Your task to perform on an android device: change alarm snooze length Image 0: 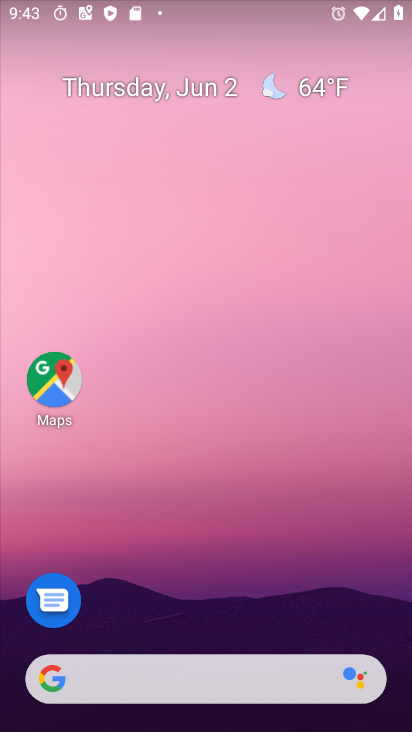
Step 0: drag from (220, 576) to (194, 78)
Your task to perform on an android device: change alarm snooze length Image 1: 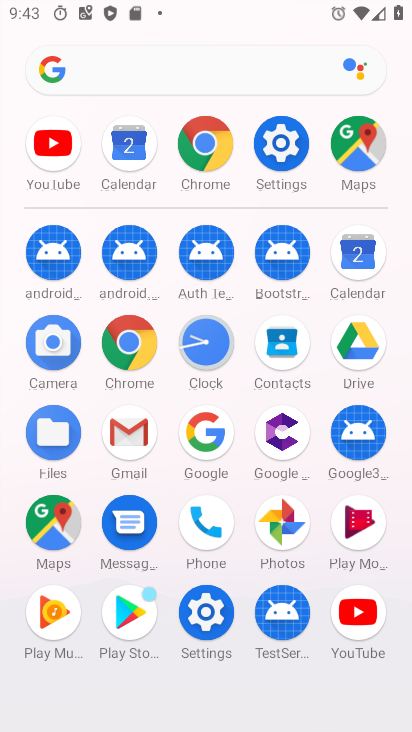
Step 1: click (215, 344)
Your task to perform on an android device: change alarm snooze length Image 2: 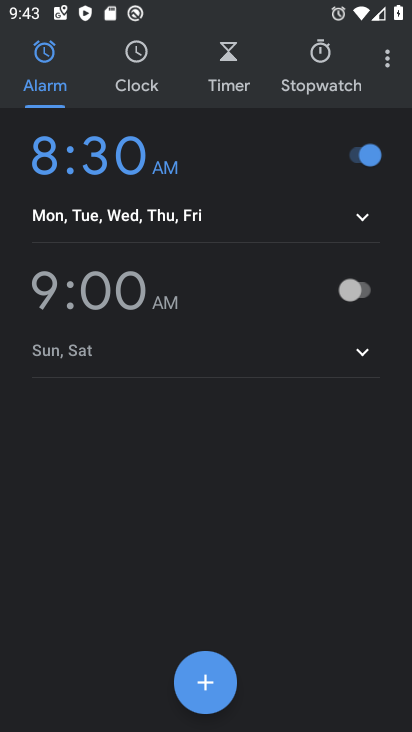
Step 2: click (381, 57)
Your task to perform on an android device: change alarm snooze length Image 3: 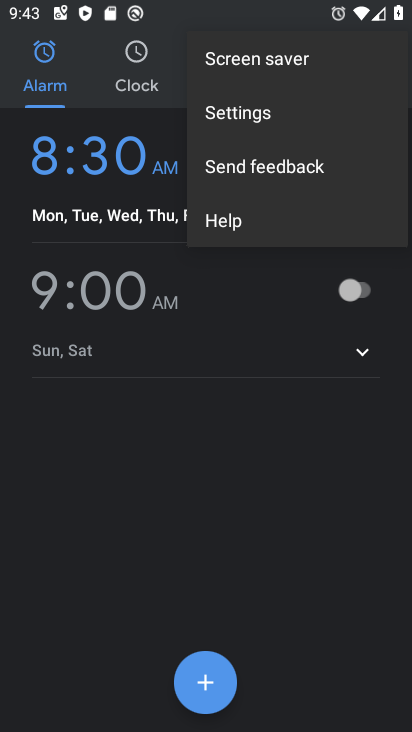
Step 3: click (261, 126)
Your task to perform on an android device: change alarm snooze length Image 4: 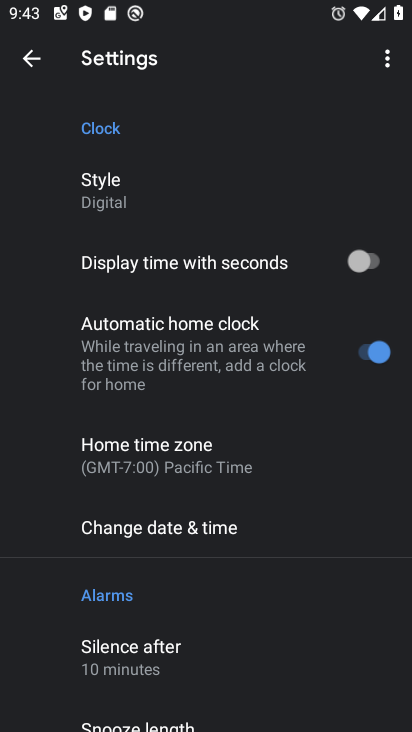
Step 4: drag from (207, 684) to (171, 368)
Your task to perform on an android device: change alarm snooze length Image 5: 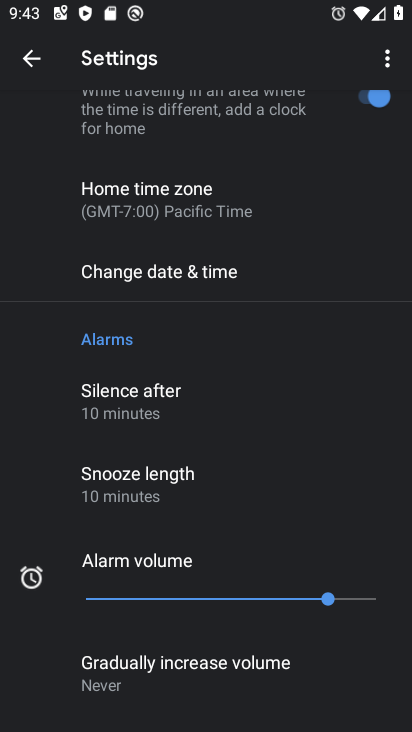
Step 5: click (183, 481)
Your task to perform on an android device: change alarm snooze length Image 6: 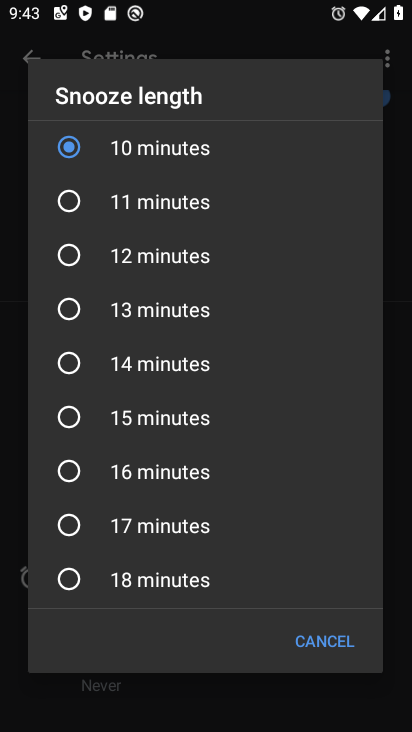
Step 6: click (68, 368)
Your task to perform on an android device: change alarm snooze length Image 7: 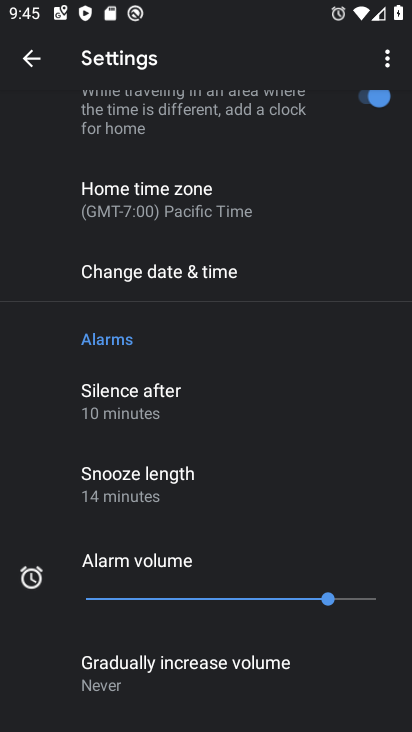
Step 7: task complete